Your task to perform on an android device: turn on improve location accuracy Image 0: 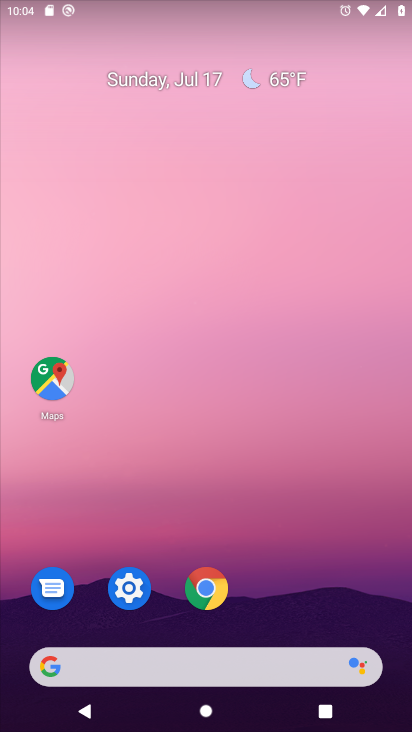
Step 0: drag from (293, 698) to (206, 17)
Your task to perform on an android device: turn on improve location accuracy Image 1: 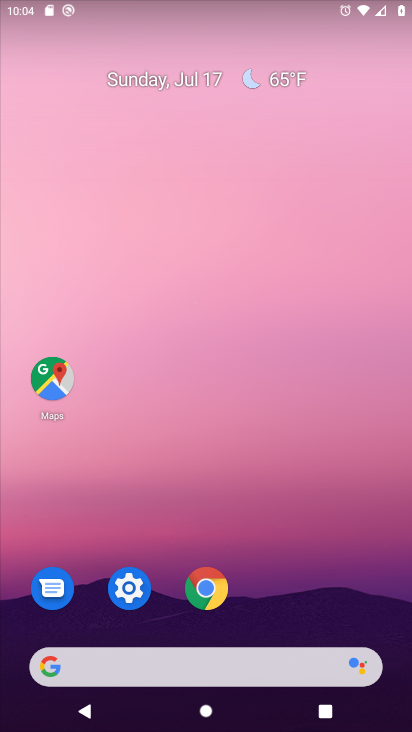
Step 1: drag from (237, 653) to (131, 10)
Your task to perform on an android device: turn on improve location accuracy Image 2: 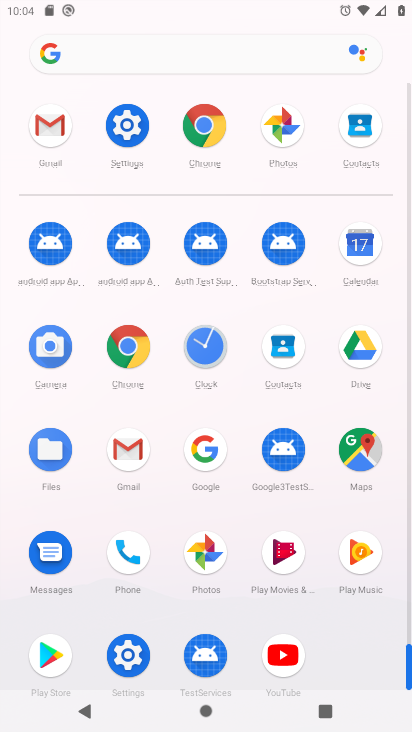
Step 2: click (131, 125)
Your task to perform on an android device: turn on improve location accuracy Image 3: 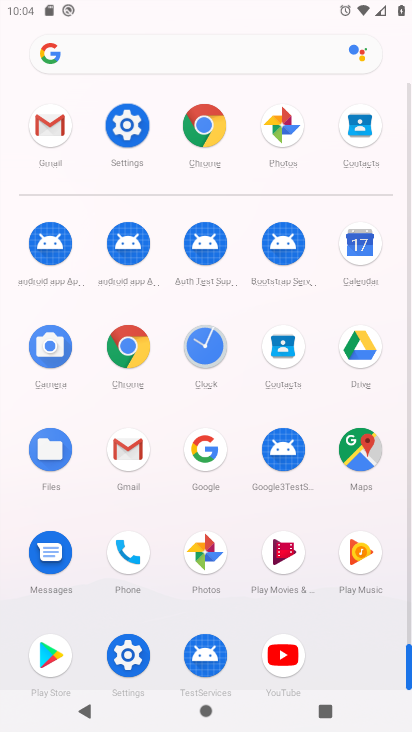
Step 3: click (131, 125)
Your task to perform on an android device: turn on improve location accuracy Image 4: 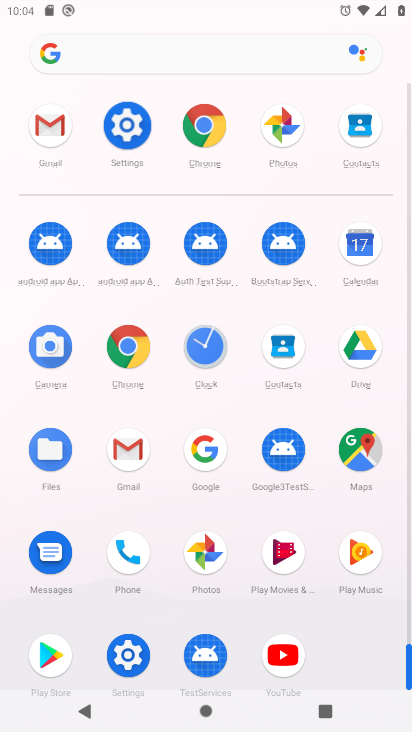
Step 4: click (133, 123)
Your task to perform on an android device: turn on improve location accuracy Image 5: 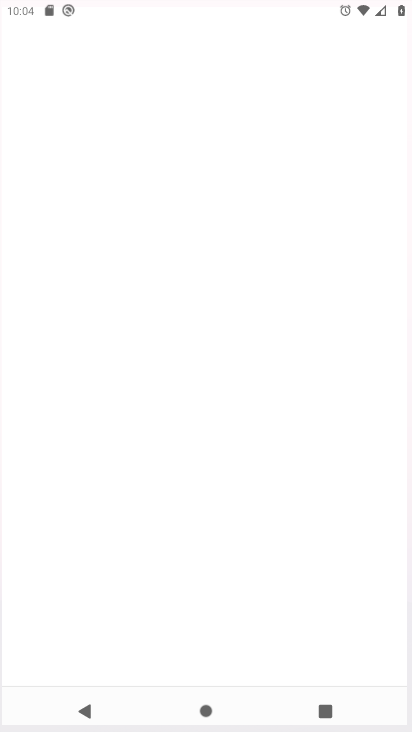
Step 5: click (136, 121)
Your task to perform on an android device: turn on improve location accuracy Image 6: 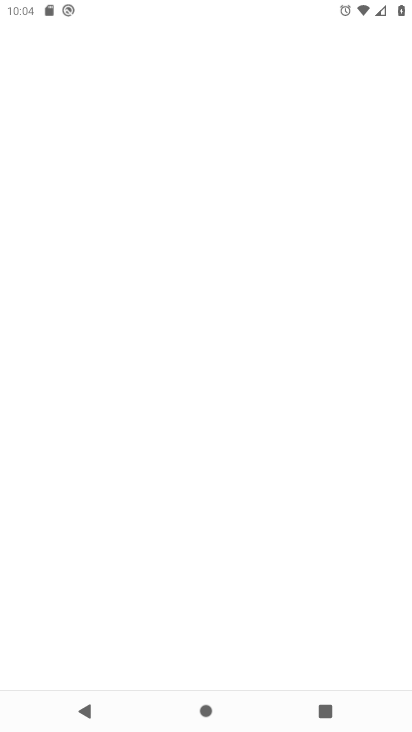
Step 6: click (141, 119)
Your task to perform on an android device: turn on improve location accuracy Image 7: 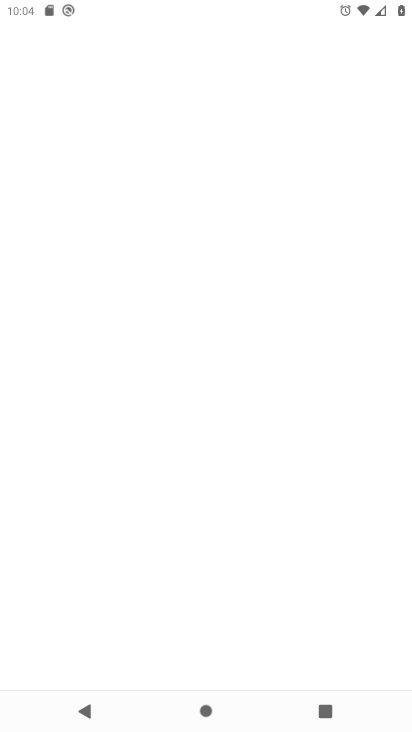
Step 7: click (136, 121)
Your task to perform on an android device: turn on improve location accuracy Image 8: 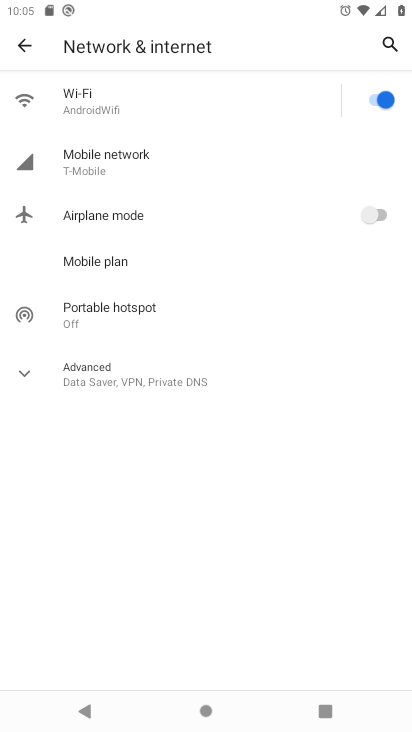
Step 8: click (16, 56)
Your task to perform on an android device: turn on improve location accuracy Image 9: 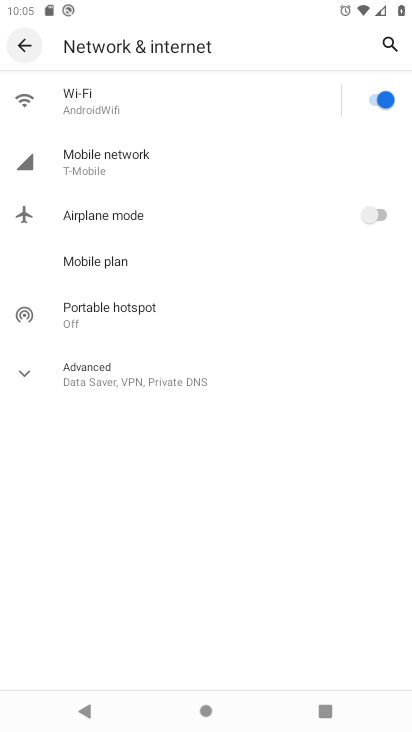
Step 9: click (16, 56)
Your task to perform on an android device: turn on improve location accuracy Image 10: 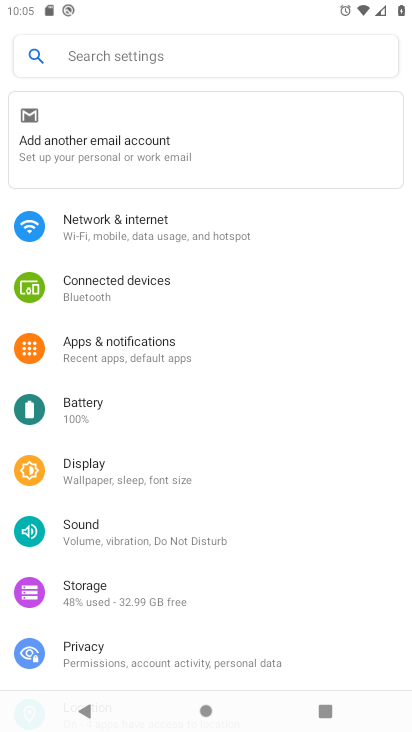
Step 10: drag from (83, 485) to (139, 207)
Your task to perform on an android device: turn on improve location accuracy Image 11: 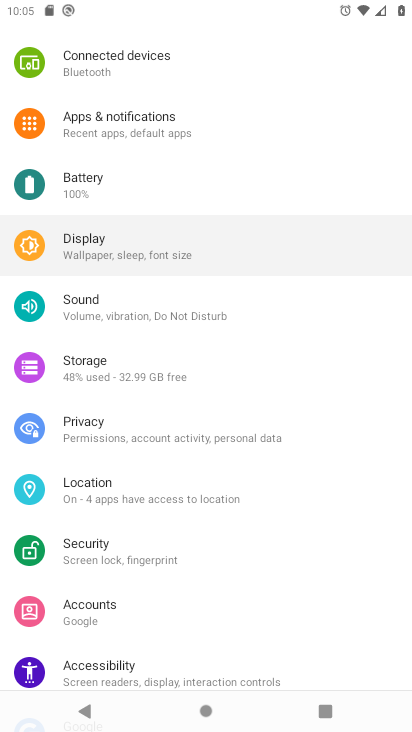
Step 11: drag from (151, 484) to (138, 320)
Your task to perform on an android device: turn on improve location accuracy Image 12: 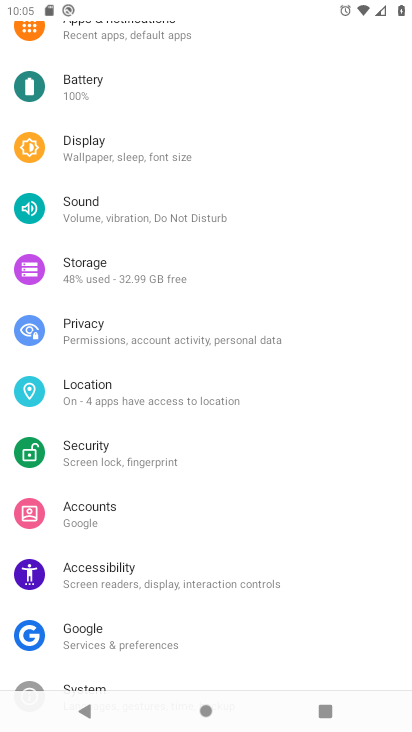
Step 12: click (87, 396)
Your task to perform on an android device: turn on improve location accuracy Image 13: 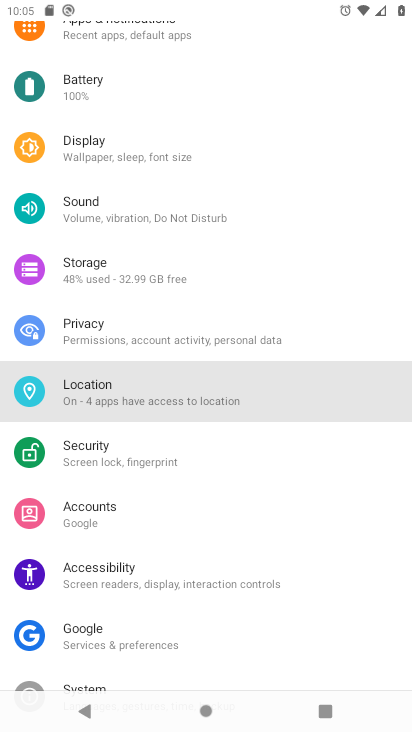
Step 13: click (93, 386)
Your task to perform on an android device: turn on improve location accuracy Image 14: 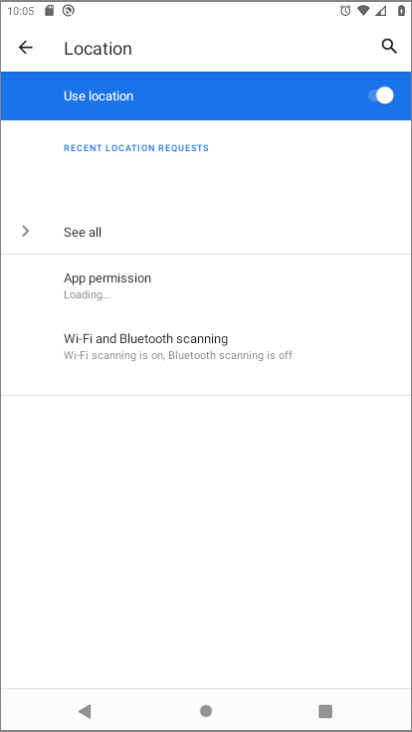
Step 14: click (94, 386)
Your task to perform on an android device: turn on improve location accuracy Image 15: 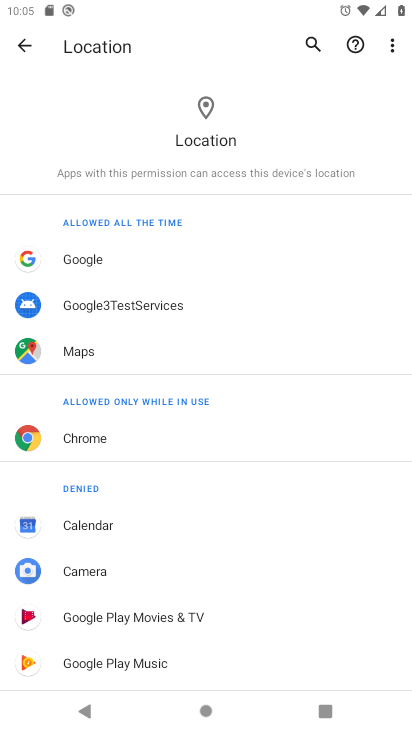
Step 15: click (19, 55)
Your task to perform on an android device: turn on improve location accuracy Image 16: 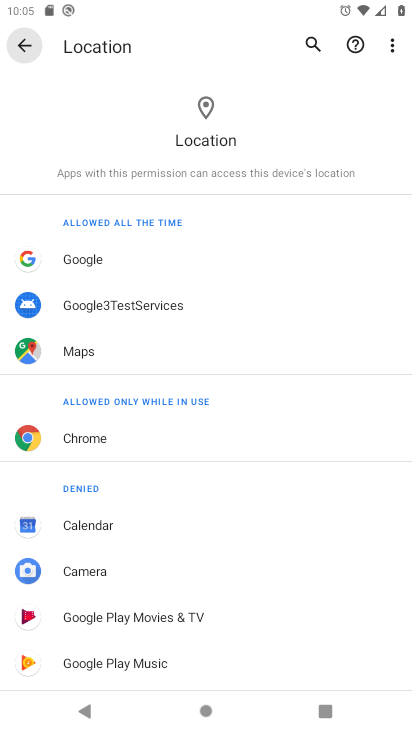
Step 16: click (34, 46)
Your task to perform on an android device: turn on improve location accuracy Image 17: 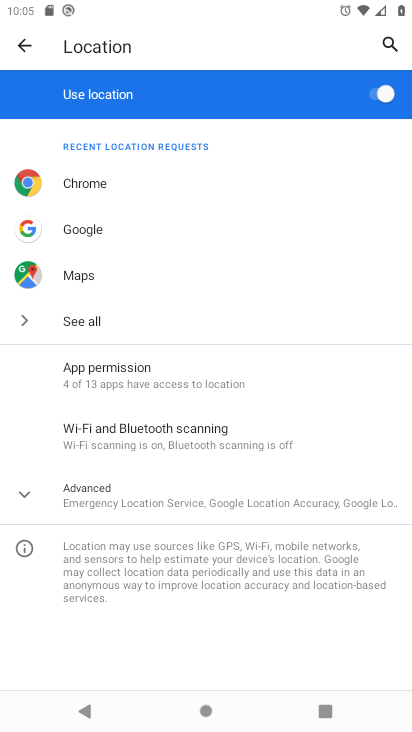
Step 17: click (115, 499)
Your task to perform on an android device: turn on improve location accuracy Image 18: 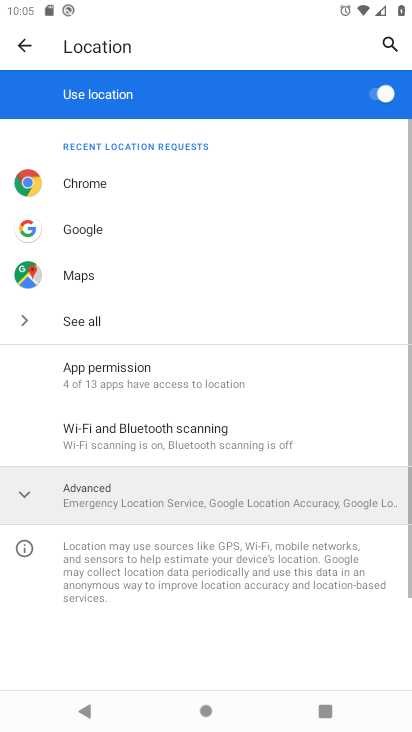
Step 18: click (118, 499)
Your task to perform on an android device: turn on improve location accuracy Image 19: 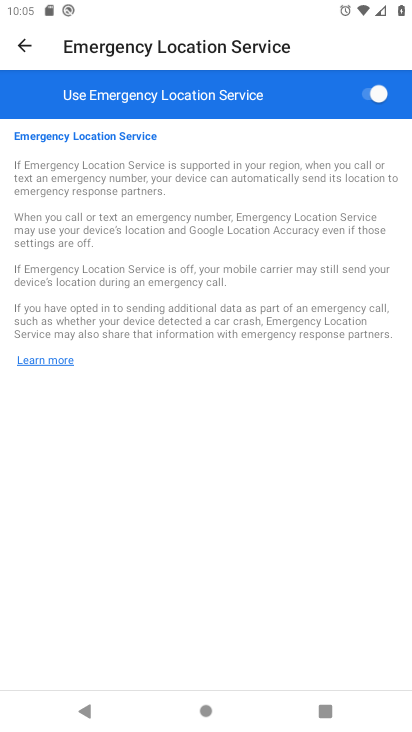
Step 19: click (26, 33)
Your task to perform on an android device: turn on improve location accuracy Image 20: 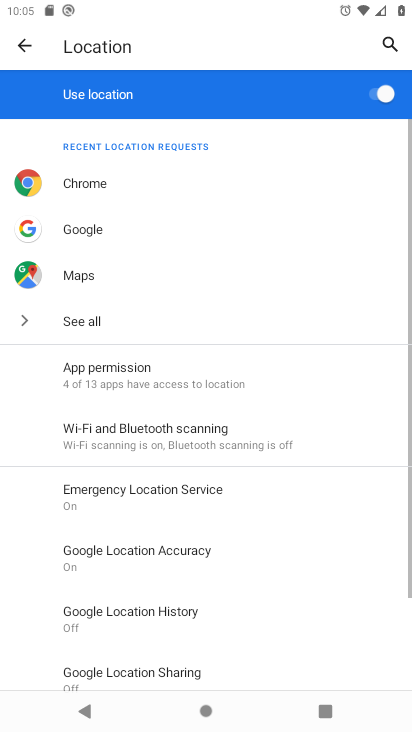
Step 20: drag from (146, 592) to (130, 278)
Your task to perform on an android device: turn on improve location accuracy Image 21: 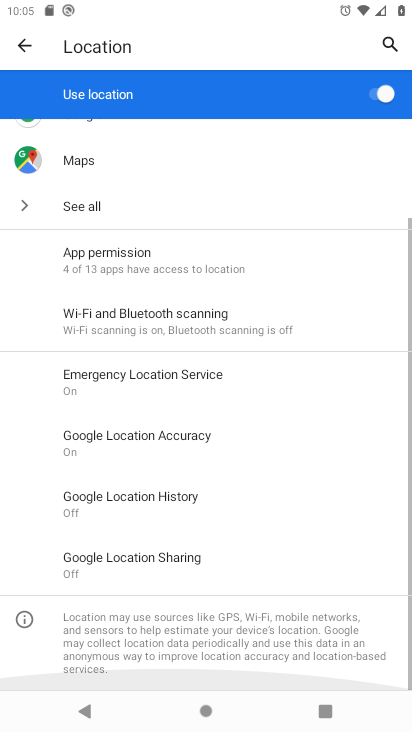
Step 21: drag from (215, 482) to (240, 196)
Your task to perform on an android device: turn on improve location accuracy Image 22: 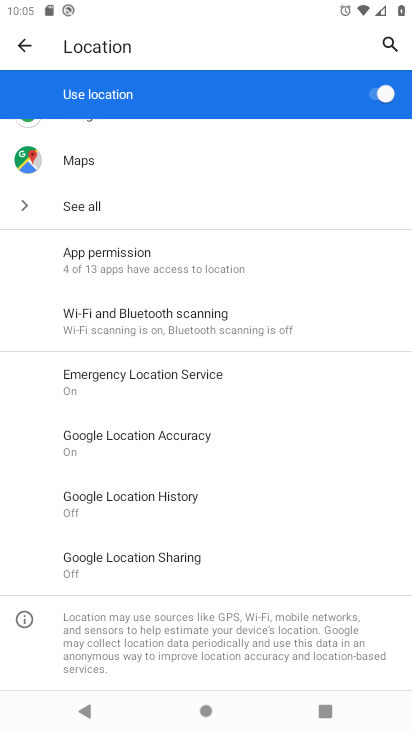
Step 22: click (139, 430)
Your task to perform on an android device: turn on improve location accuracy Image 23: 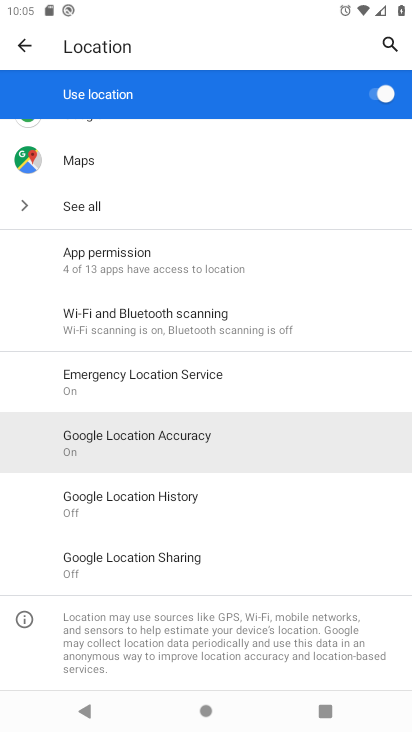
Step 23: click (139, 430)
Your task to perform on an android device: turn on improve location accuracy Image 24: 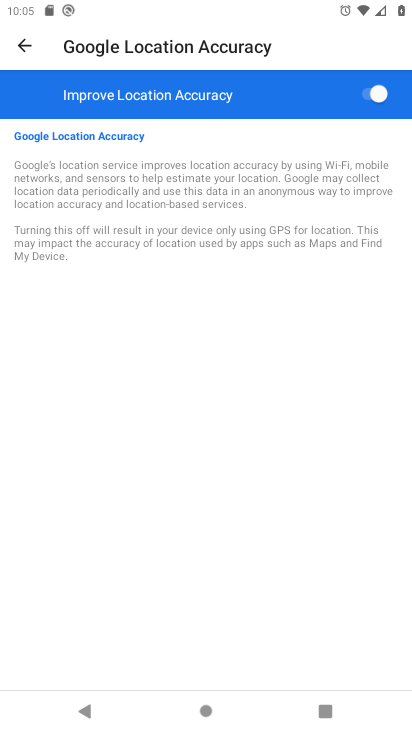
Step 24: task complete